Your task to perform on an android device: Search for pizza restaurants on Maps Image 0: 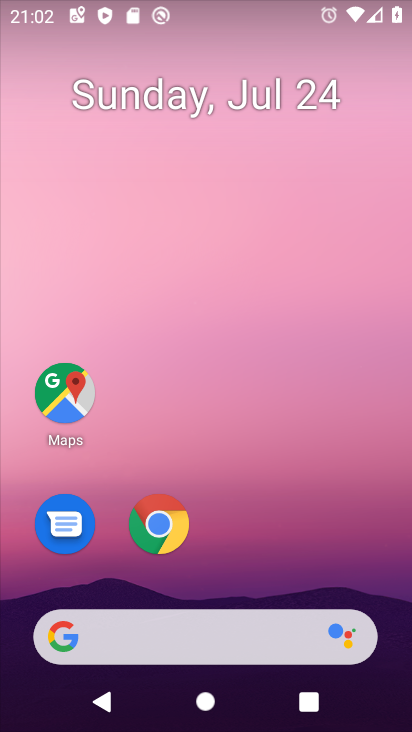
Step 0: click (63, 402)
Your task to perform on an android device: Search for pizza restaurants on Maps Image 1: 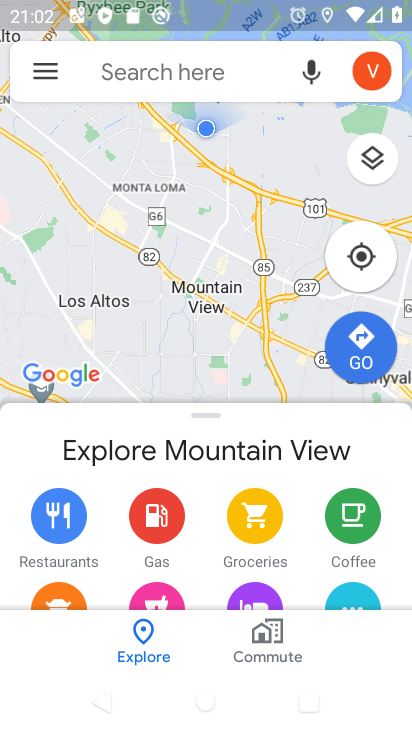
Step 1: click (210, 60)
Your task to perform on an android device: Search for pizza restaurants on Maps Image 2: 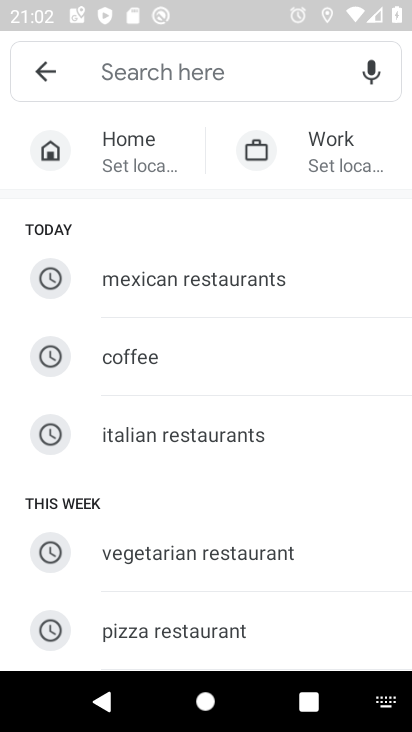
Step 2: click (200, 633)
Your task to perform on an android device: Search for pizza restaurants on Maps Image 3: 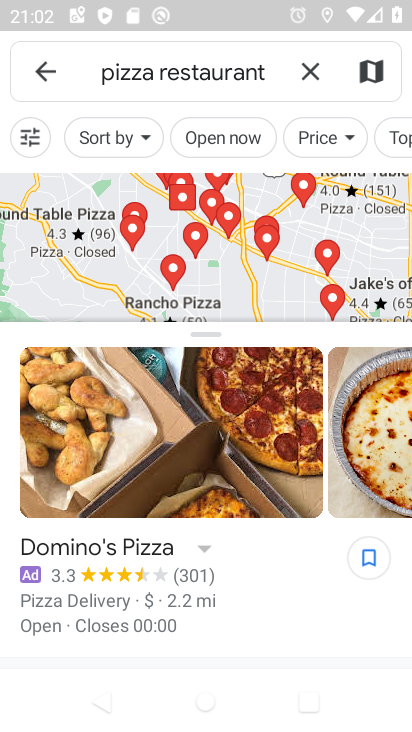
Step 3: task complete